Your task to perform on an android device: find photos in the google photos app Image 0: 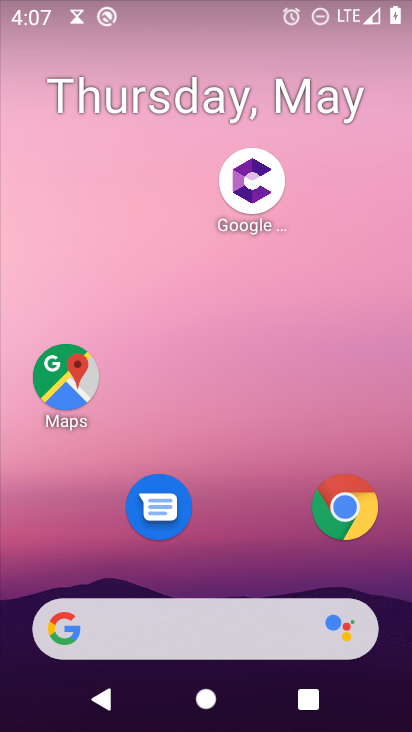
Step 0: press home button
Your task to perform on an android device: find photos in the google photos app Image 1: 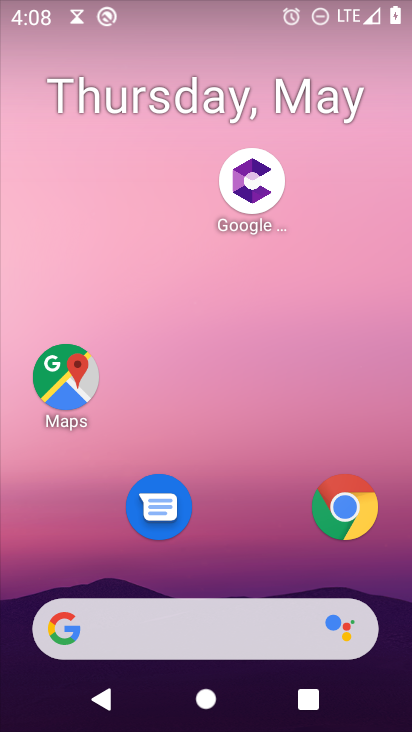
Step 1: drag from (240, 587) to (260, 32)
Your task to perform on an android device: find photos in the google photos app Image 2: 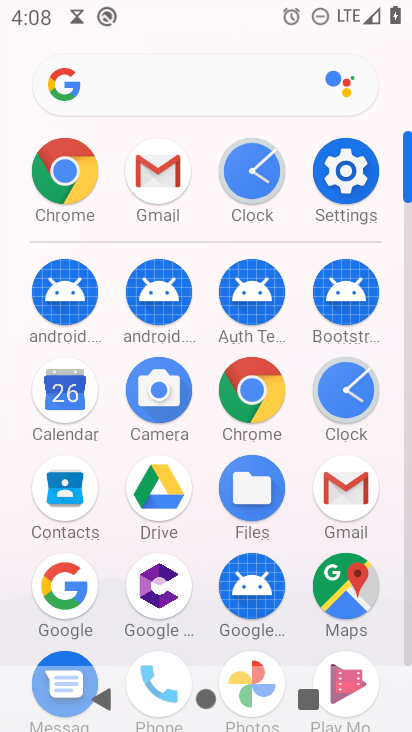
Step 2: drag from (395, 653) to (403, 341)
Your task to perform on an android device: find photos in the google photos app Image 3: 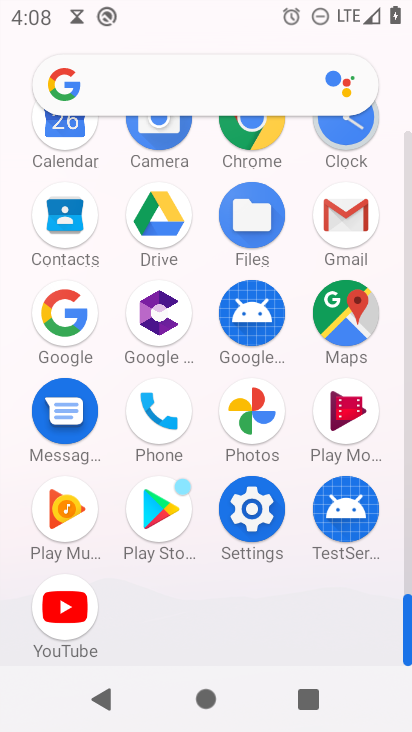
Step 3: click (252, 407)
Your task to perform on an android device: find photos in the google photos app Image 4: 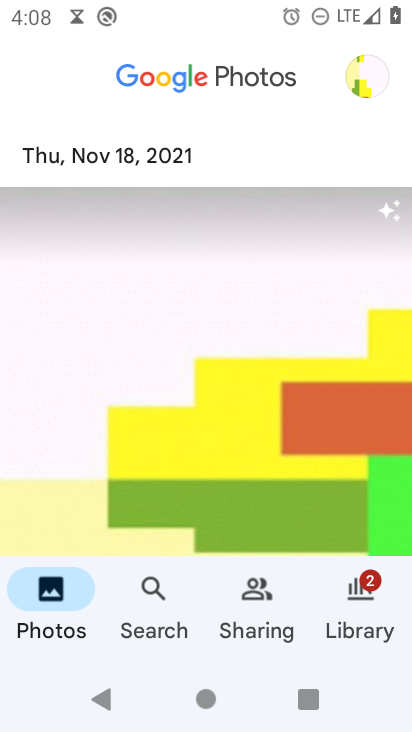
Step 4: click (55, 588)
Your task to perform on an android device: find photos in the google photos app Image 5: 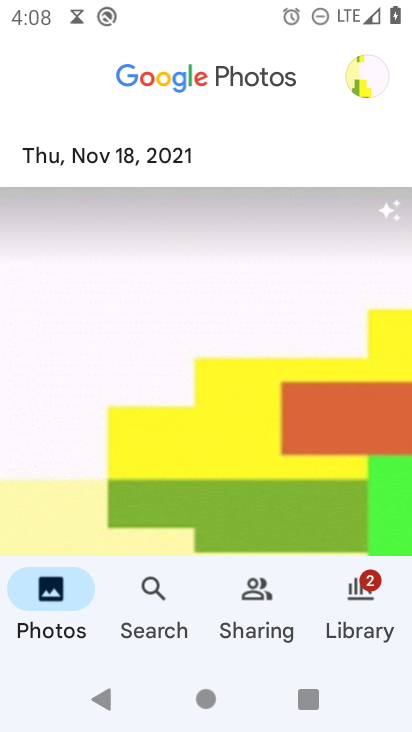
Step 5: task complete